Your task to perform on an android device: toggle pop-ups in chrome Image 0: 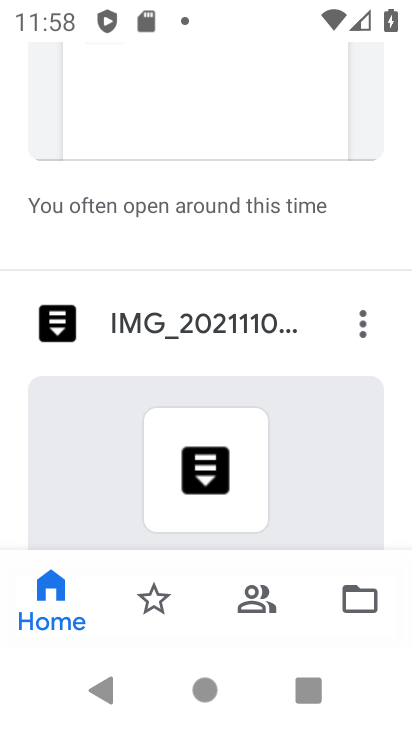
Step 0: press home button
Your task to perform on an android device: toggle pop-ups in chrome Image 1: 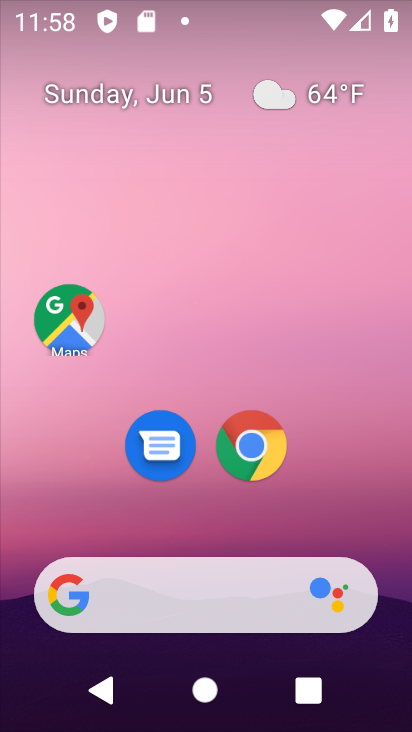
Step 1: drag from (204, 497) to (313, 1)
Your task to perform on an android device: toggle pop-ups in chrome Image 2: 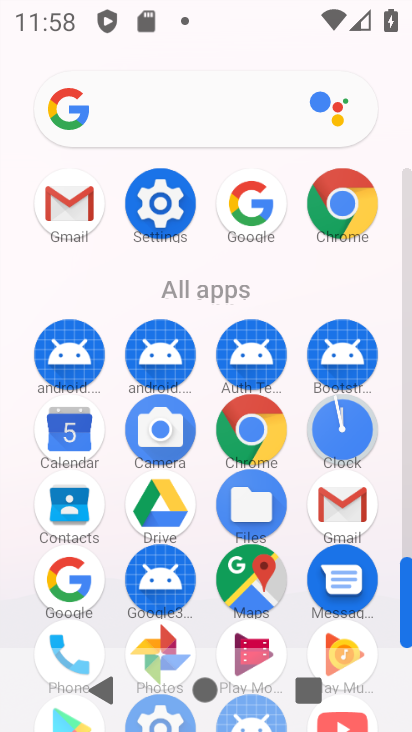
Step 2: click (255, 428)
Your task to perform on an android device: toggle pop-ups in chrome Image 3: 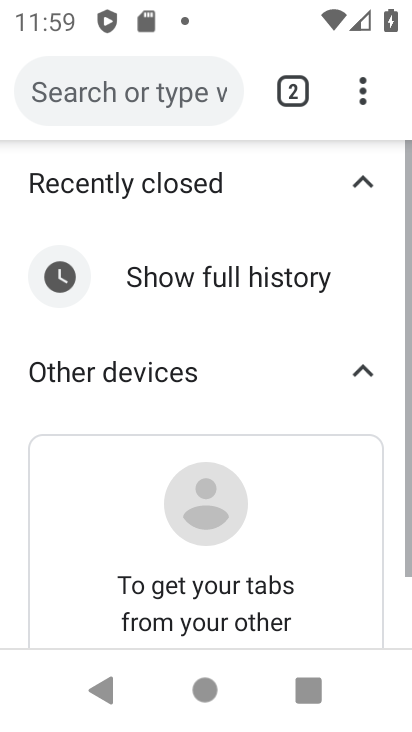
Step 3: click (358, 85)
Your task to perform on an android device: toggle pop-ups in chrome Image 4: 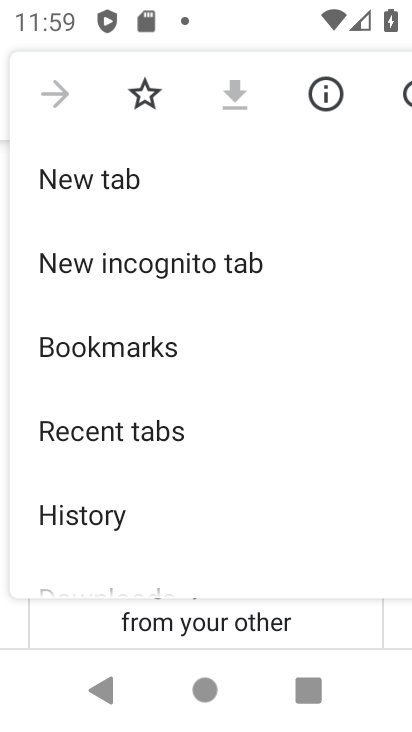
Step 4: drag from (192, 534) to (294, 78)
Your task to perform on an android device: toggle pop-ups in chrome Image 5: 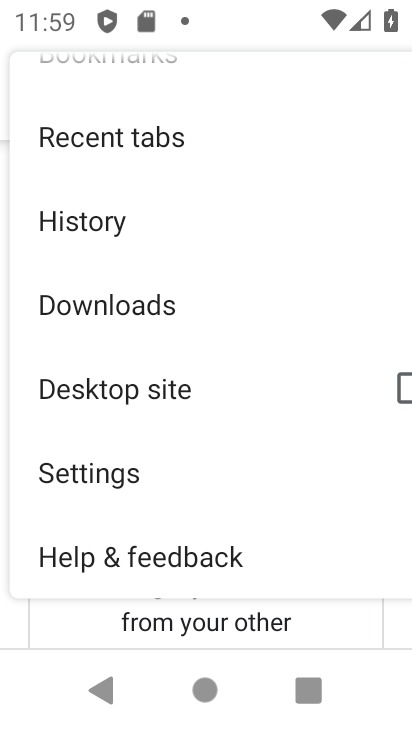
Step 5: click (197, 466)
Your task to perform on an android device: toggle pop-ups in chrome Image 6: 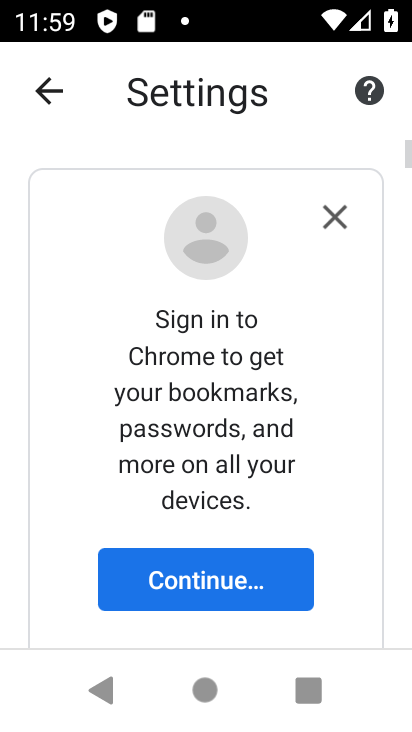
Step 6: drag from (351, 589) to (320, 65)
Your task to perform on an android device: toggle pop-ups in chrome Image 7: 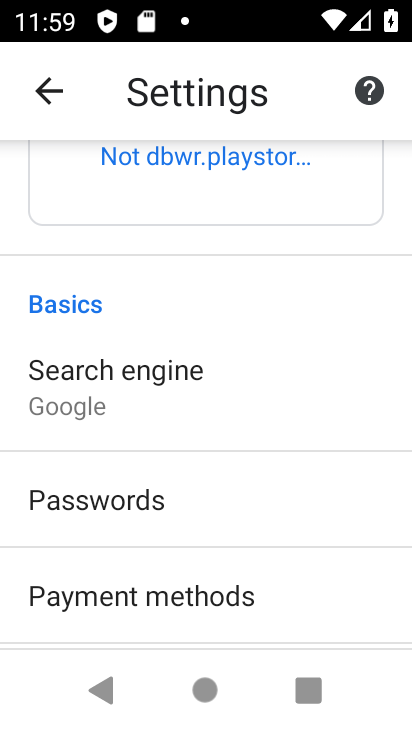
Step 7: drag from (286, 571) to (359, 140)
Your task to perform on an android device: toggle pop-ups in chrome Image 8: 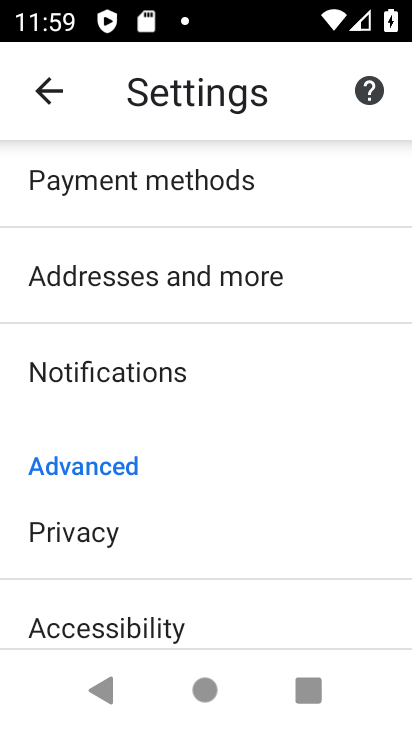
Step 8: drag from (275, 541) to (340, 103)
Your task to perform on an android device: toggle pop-ups in chrome Image 9: 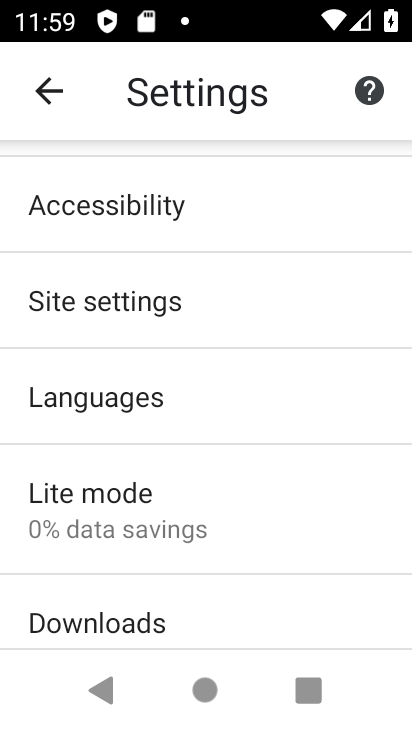
Step 9: click (208, 331)
Your task to perform on an android device: toggle pop-ups in chrome Image 10: 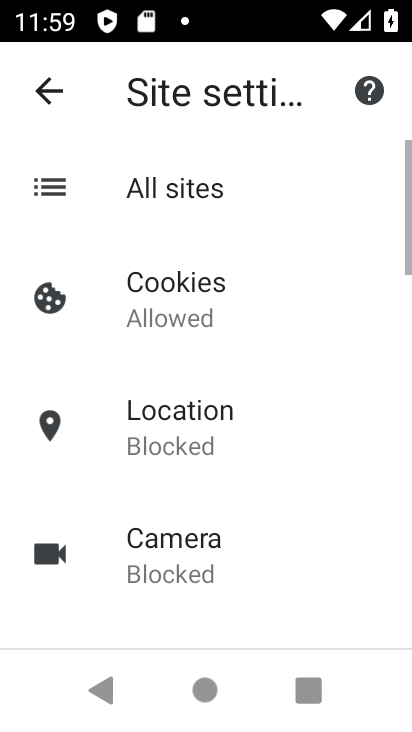
Step 10: drag from (259, 441) to (297, 107)
Your task to perform on an android device: toggle pop-ups in chrome Image 11: 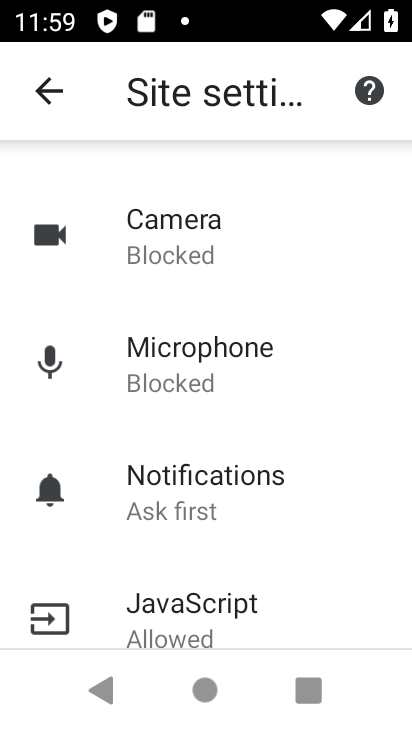
Step 11: drag from (249, 635) to (268, 146)
Your task to perform on an android device: toggle pop-ups in chrome Image 12: 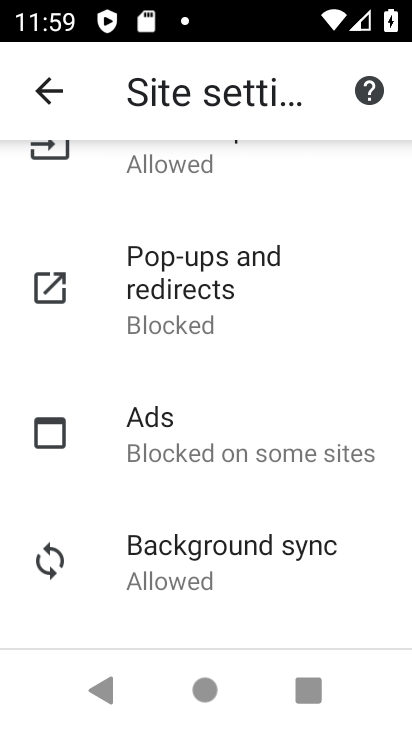
Step 12: click (230, 303)
Your task to perform on an android device: toggle pop-ups in chrome Image 13: 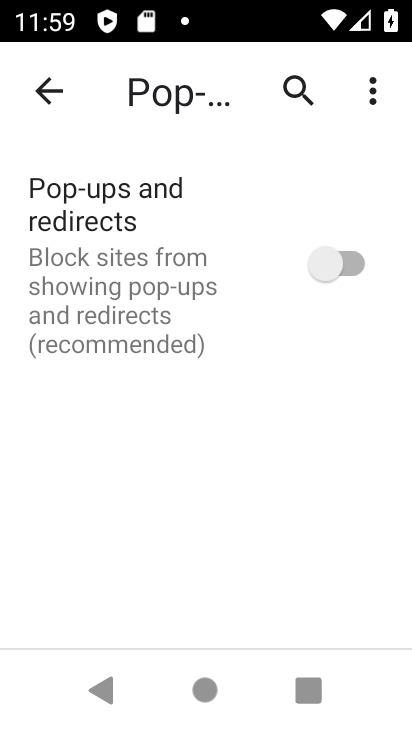
Step 13: click (355, 255)
Your task to perform on an android device: toggle pop-ups in chrome Image 14: 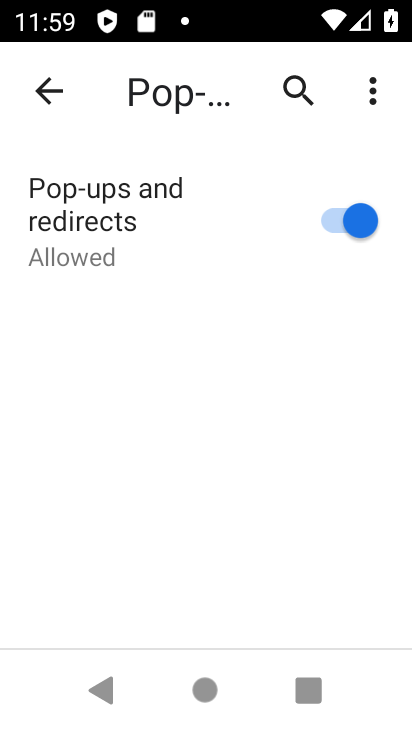
Step 14: task complete